Your task to perform on an android device: Open Amazon Image 0: 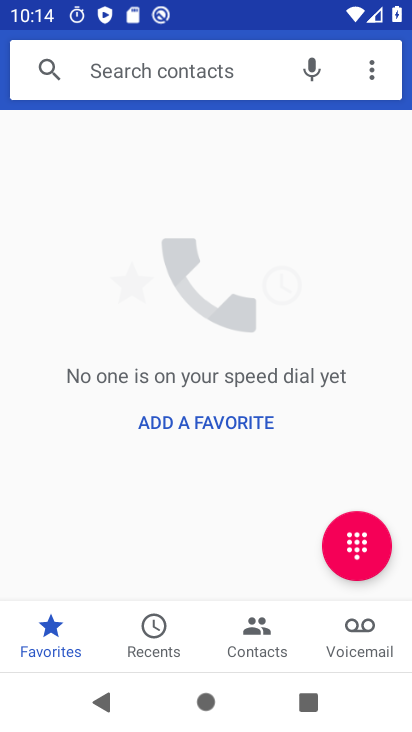
Step 0: press home button
Your task to perform on an android device: Open Amazon Image 1: 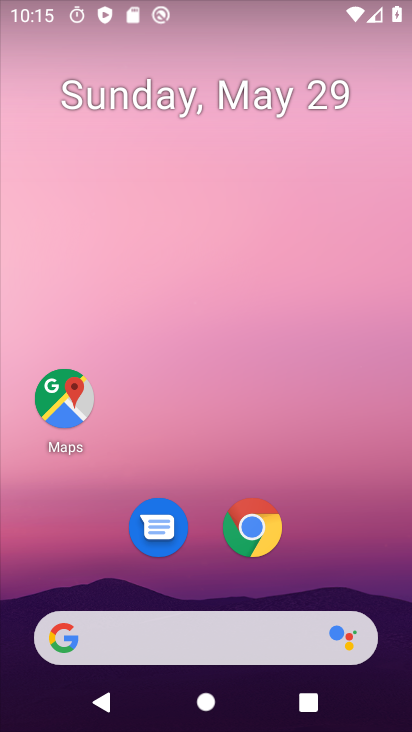
Step 1: click (261, 523)
Your task to perform on an android device: Open Amazon Image 2: 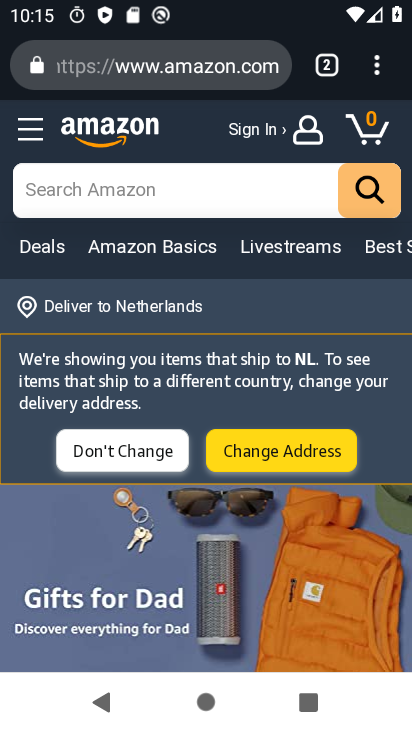
Step 2: task complete